Your task to perform on an android device: Open Android settings Image 0: 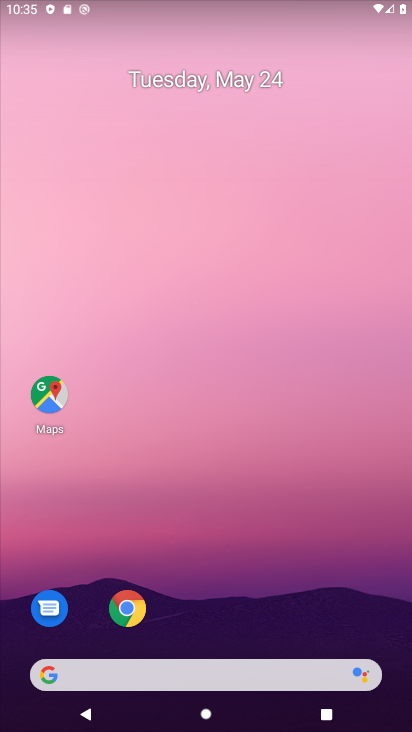
Step 0: drag from (370, 617) to (273, 36)
Your task to perform on an android device: Open Android settings Image 1: 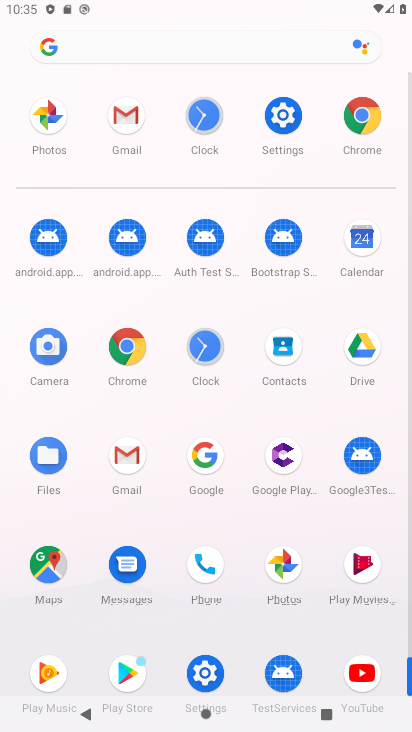
Step 1: click (209, 673)
Your task to perform on an android device: Open Android settings Image 2: 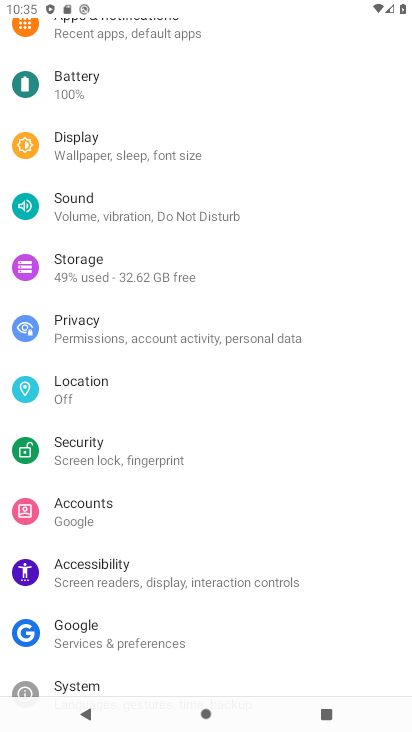
Step 2: drag from (326, 581) to (310, 232)
Your task to perform on an android device: Open Android settings Image 3: 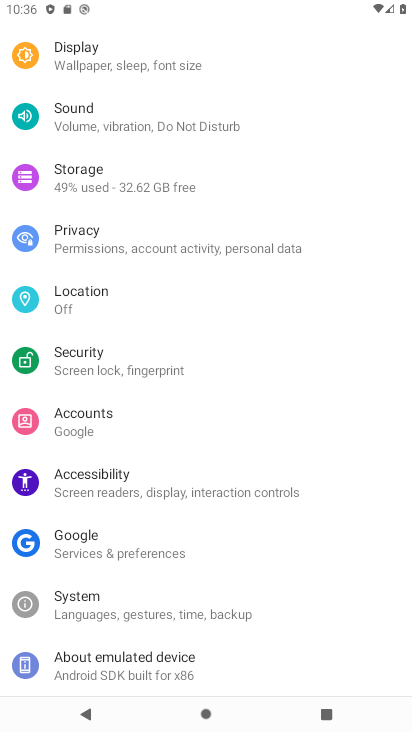
Step 3: click (104, 653)
Your task to perform on an android device: Open Android settings Image 4: 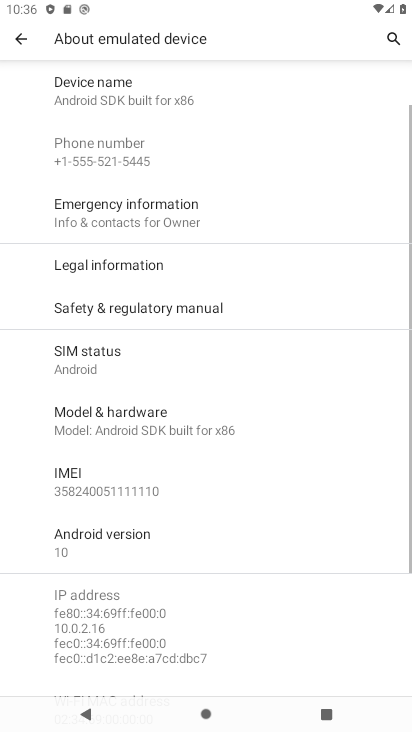
Step 4: task complete